Your task to perform on an android device: uninstall "Walmart Shopping & Grocery" Image 0: 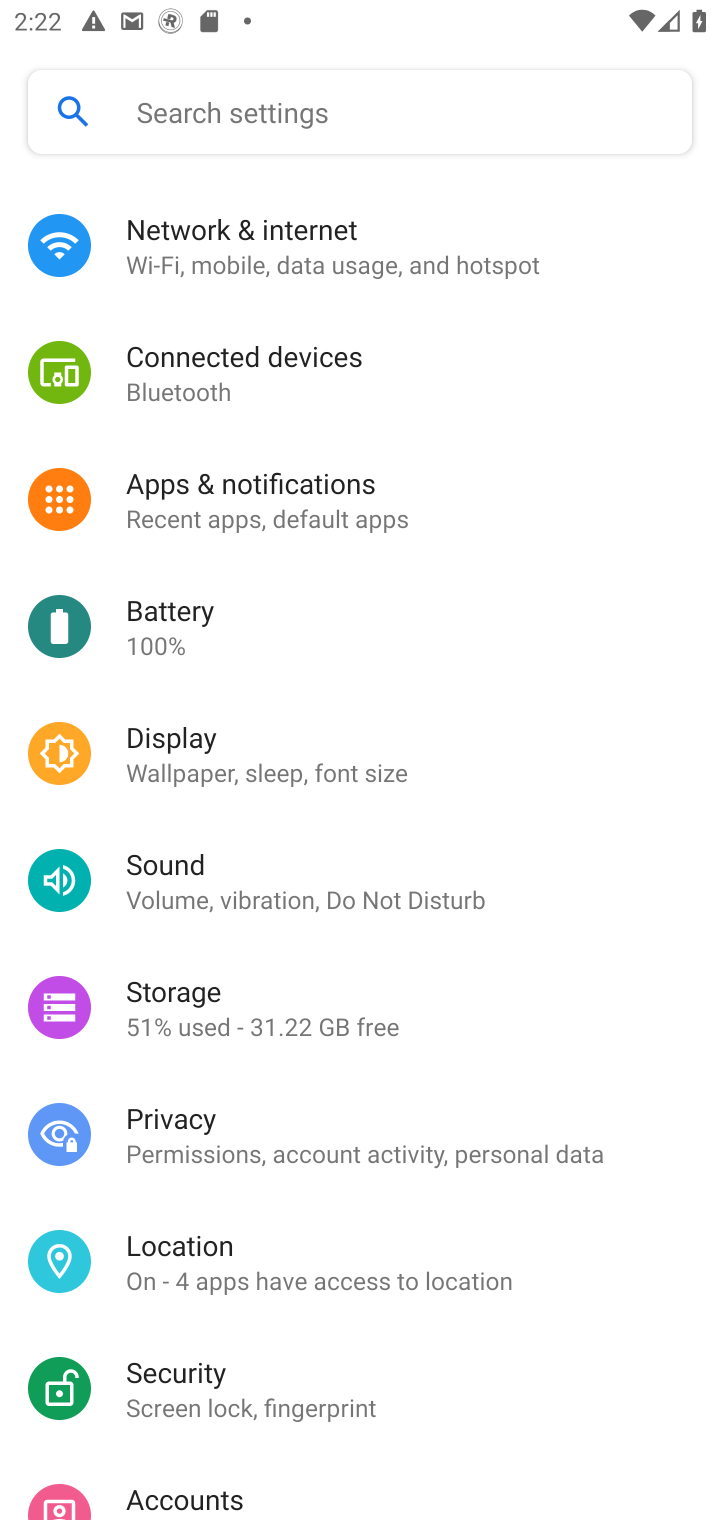
Step 0: press home button
Your task to perform on an android device: uninstall "Walmart Shopping & Grocery" Image 1: 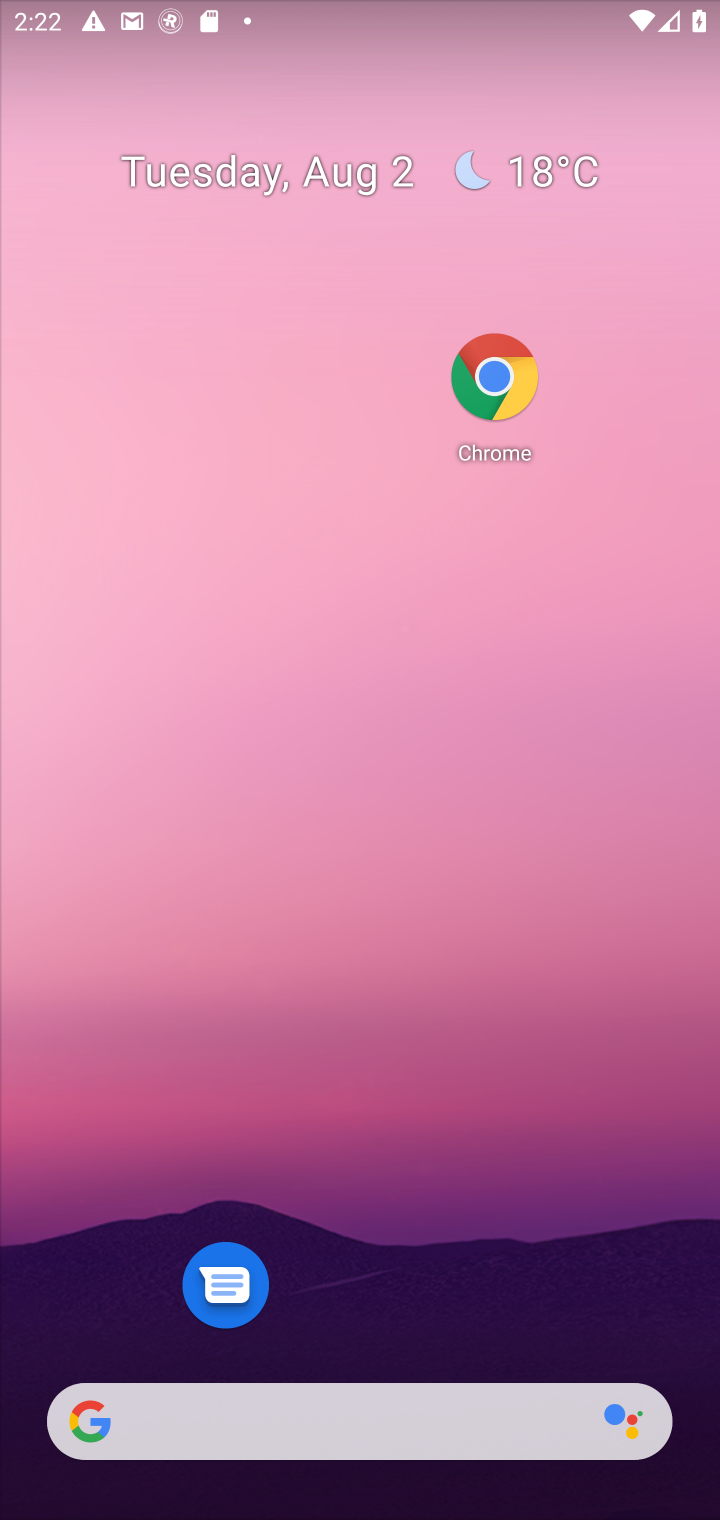
Step 1: drag from (489, 1332) to (237, 367)
Your task to perform on an android device: uninstall "Walmart Shopping & Grocery" Image 2: 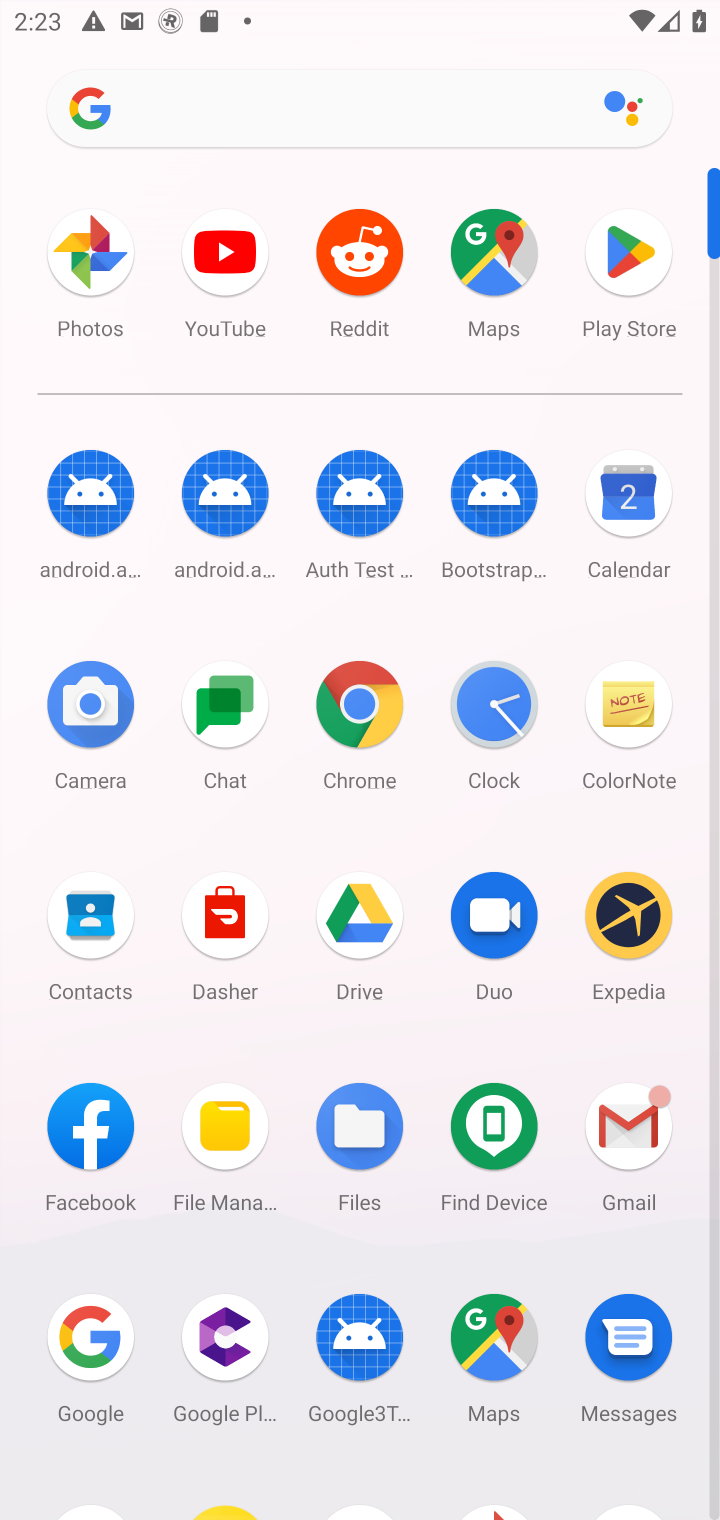
Step 2: press home button
Your task to perform on an android device: uninstall "Walmart Shopping & Grocery" Image 3: 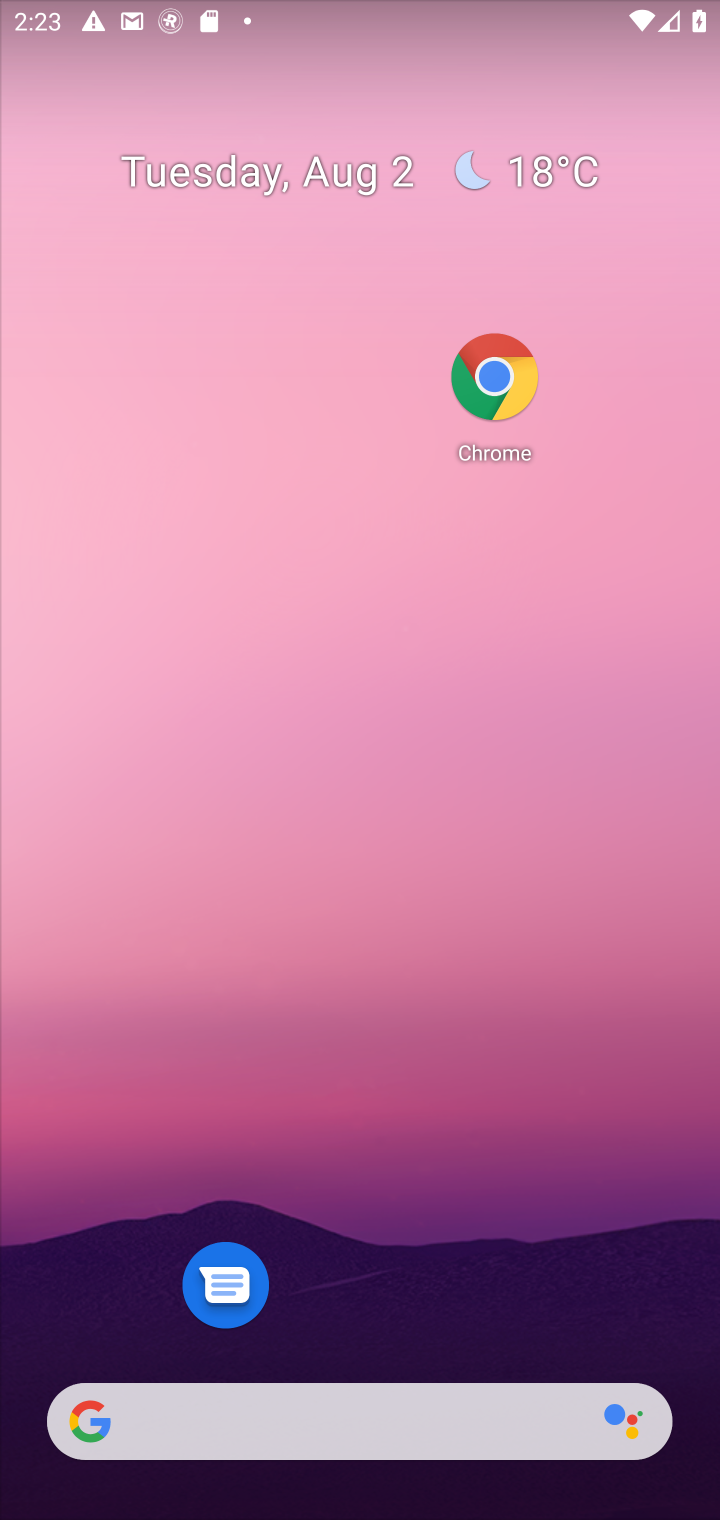
Step 3: drag from (378, 1263) to (346, 280)
Your task to perform on an android device: uninstall "Walmart Shopping & Grocery" Image 4: 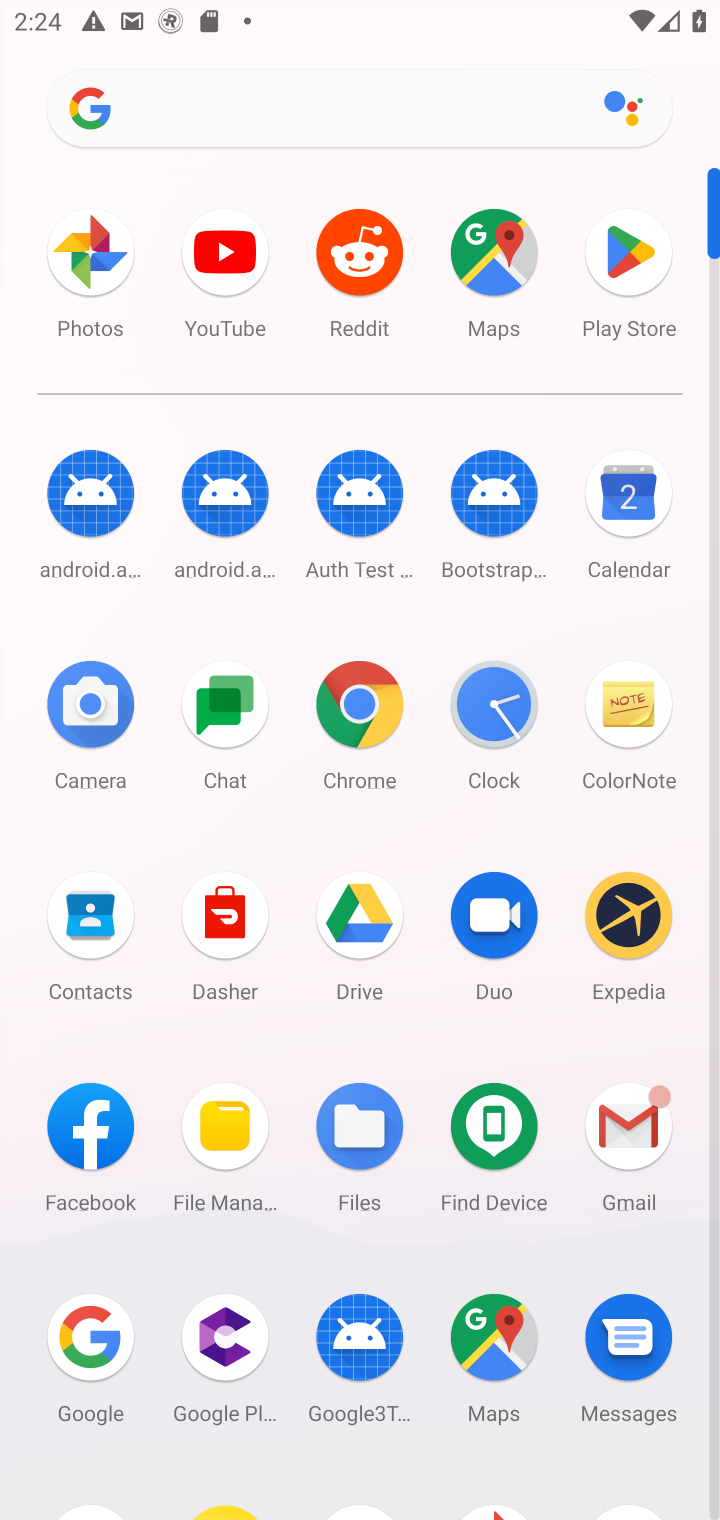
Step 4: click (601, 282)
Your task to perform on an android device: uninstall "Walmart Shopping & Grocery" Image 5: 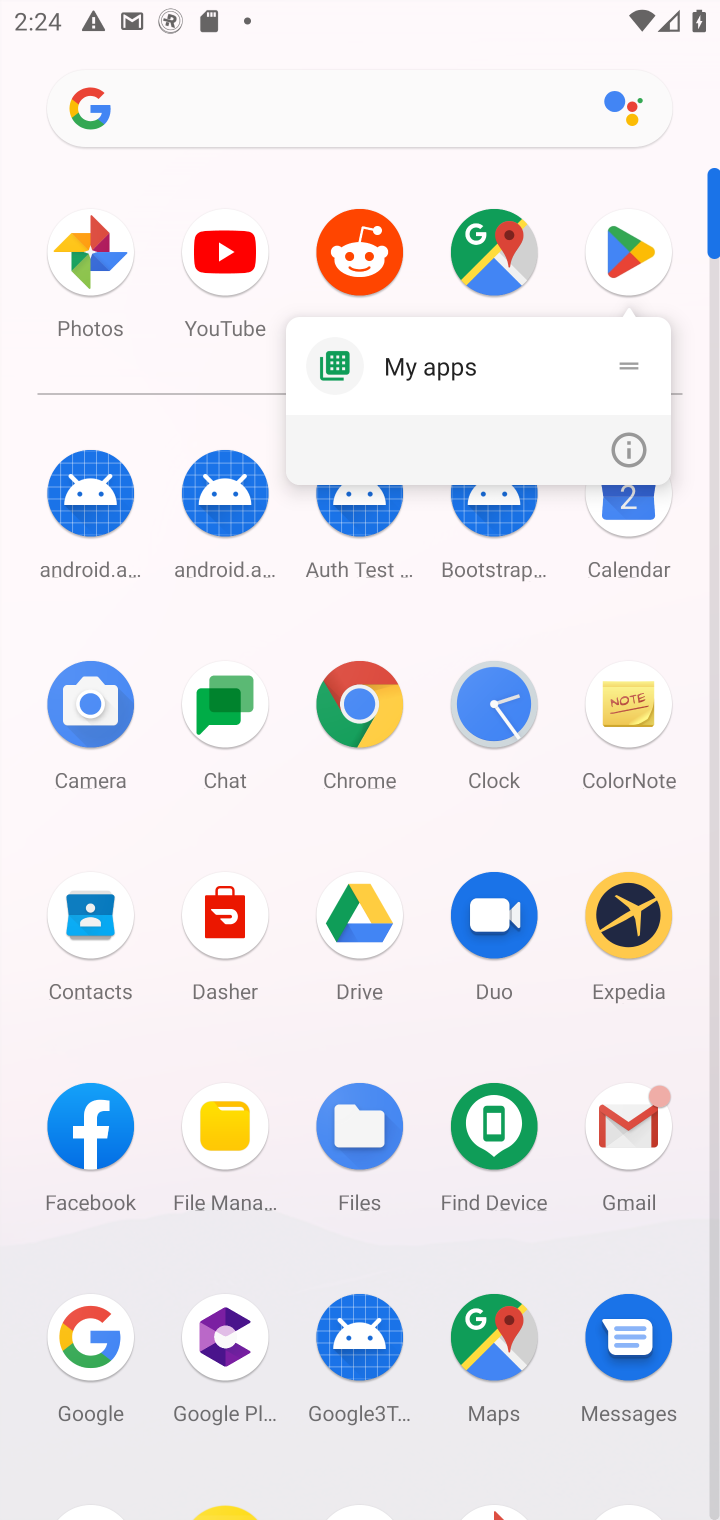
Step 5: click (601, 282)
Your task to perform on an android device: uninstall "Walmart Shopping & Grocery" Image 6: 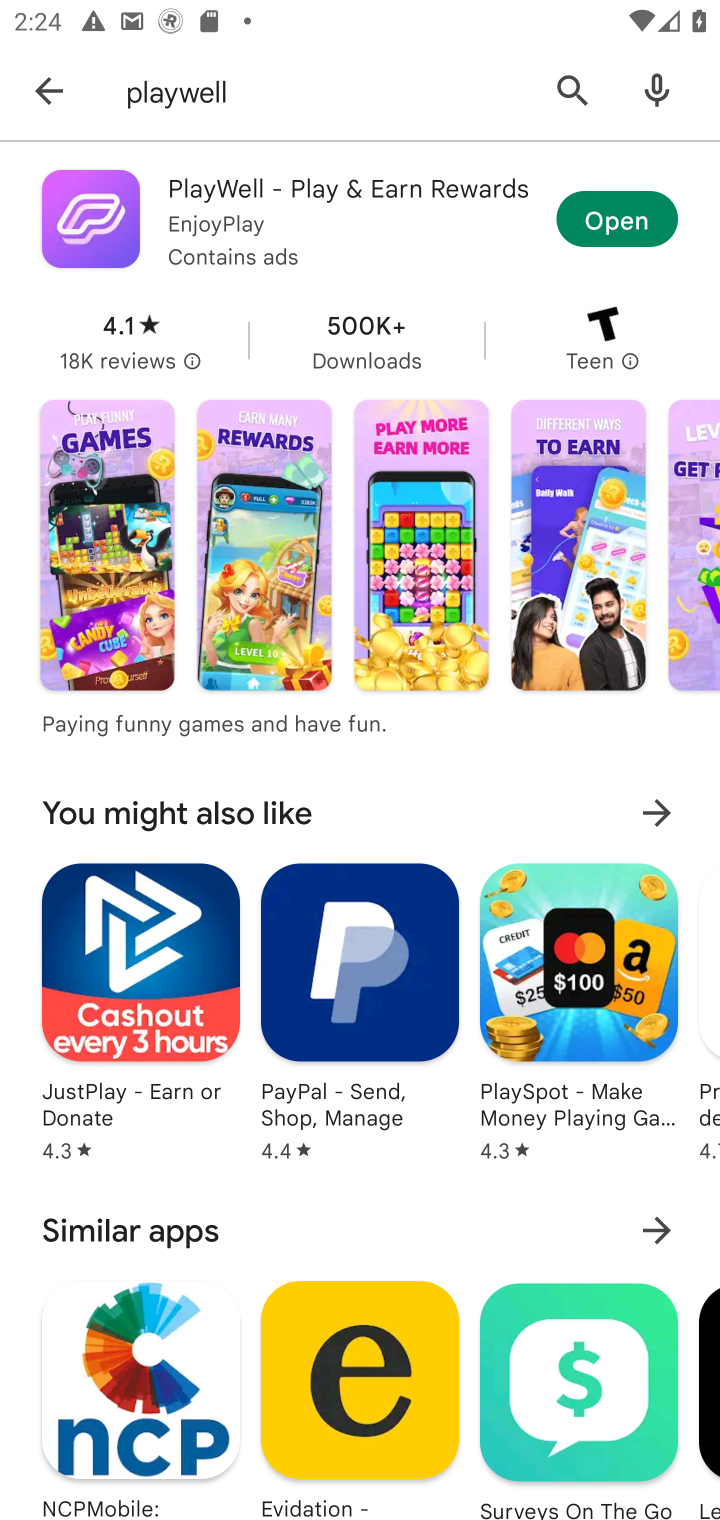
Step 6: click (599, 82)
Your task to perform on an android device: uninstall "Walmart Shopping & Grocery" Image 7: 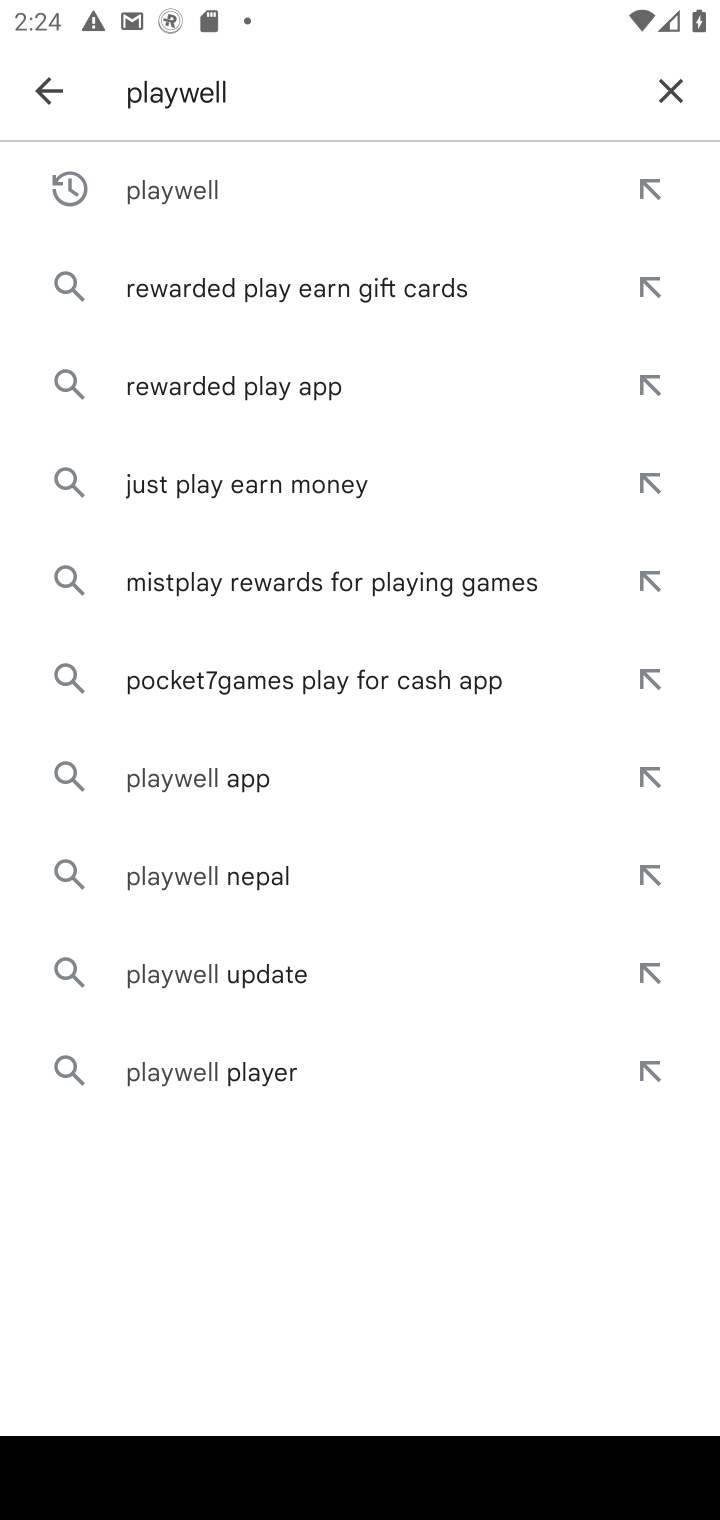
Step 7: click (696, 101)
Your task to perform on an android device: uninstall "Walmart Shopping & Grocery" Image 8: 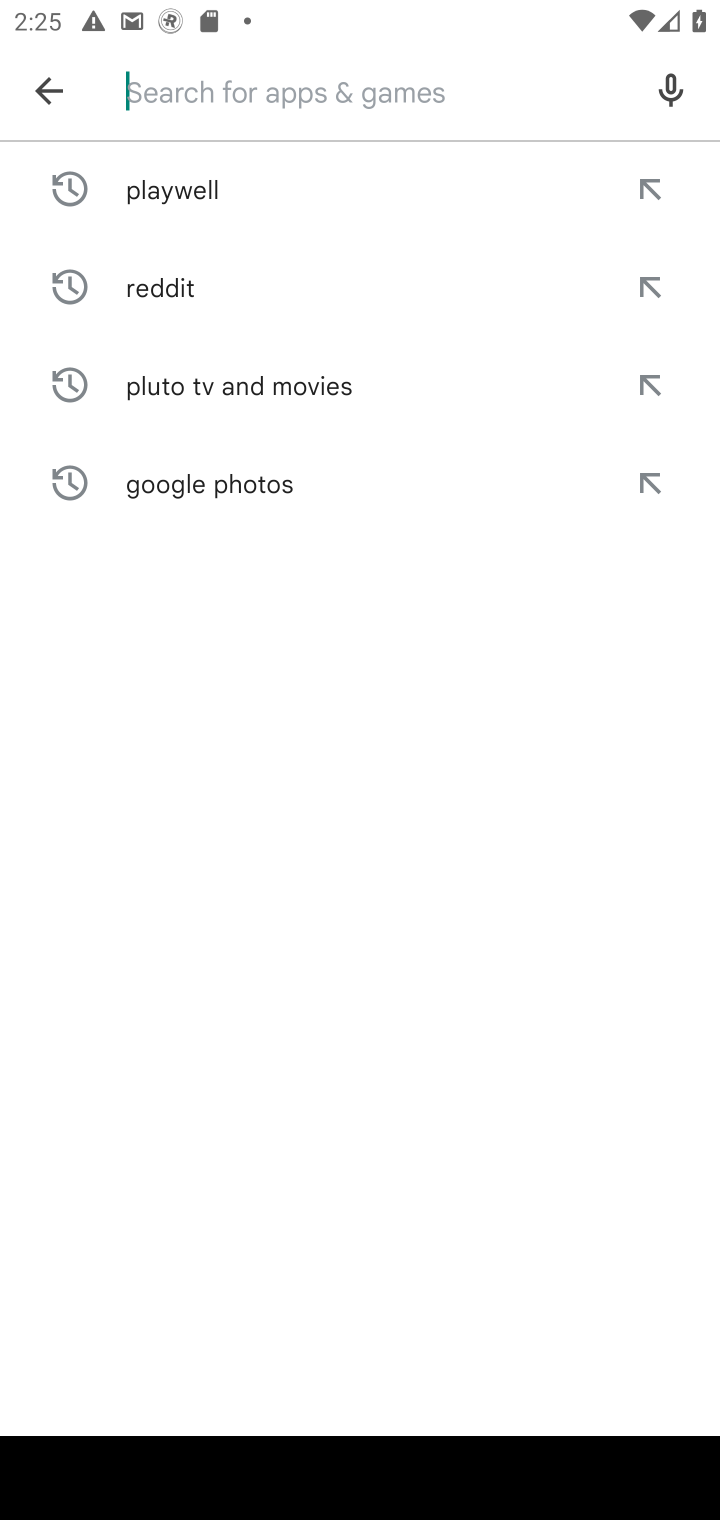
Step 8: type "Walmart Shopping & Grocery"
Your task to perform on an android device: uninstall "Walmart Shopping & Grocery" Image 9: 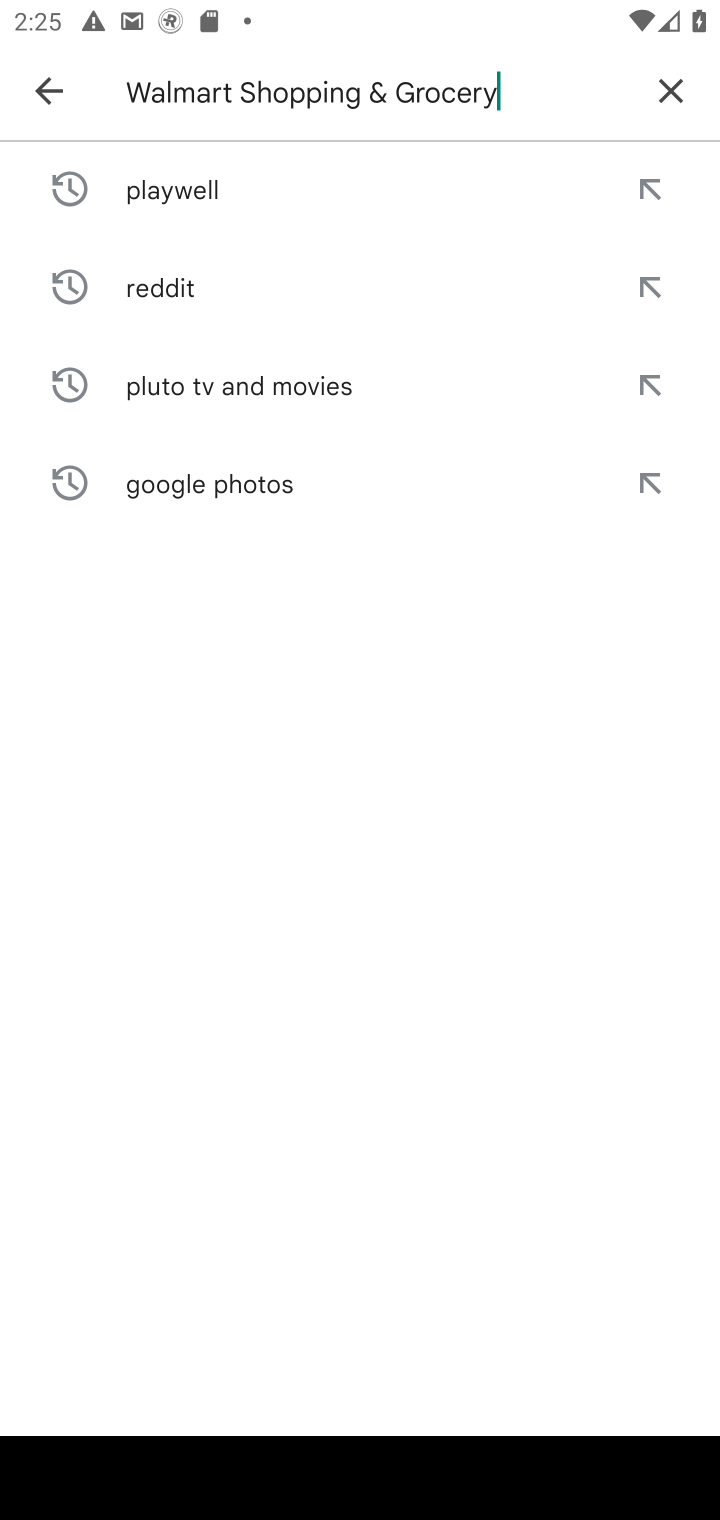
Step 9: type ""
Your task to perform on an android device: uninstall "Walmart Shopping & Grocery" Image 10: 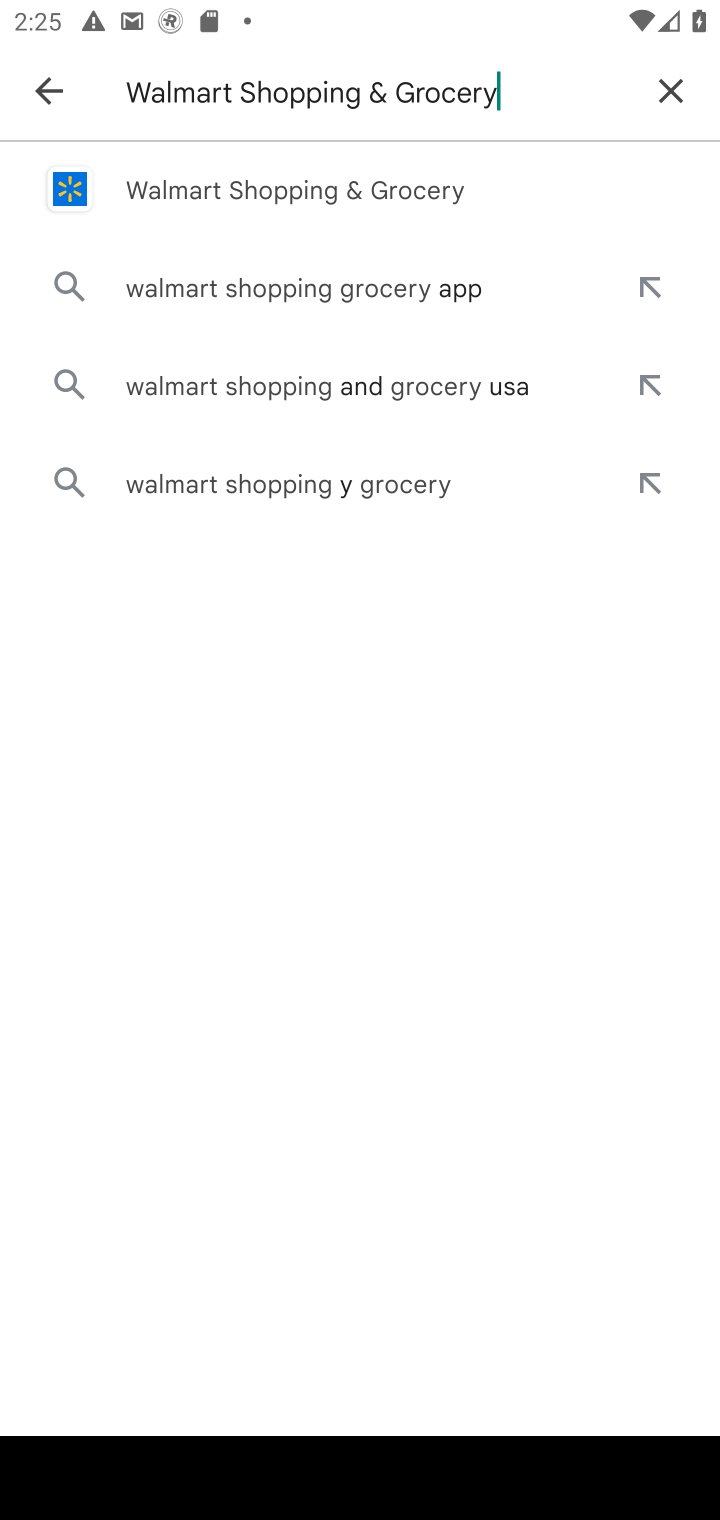
Step 10: click (156, 191)
Your task to perform on an android device: uninstall "Walmart Shopping & Grocery" Image 11: 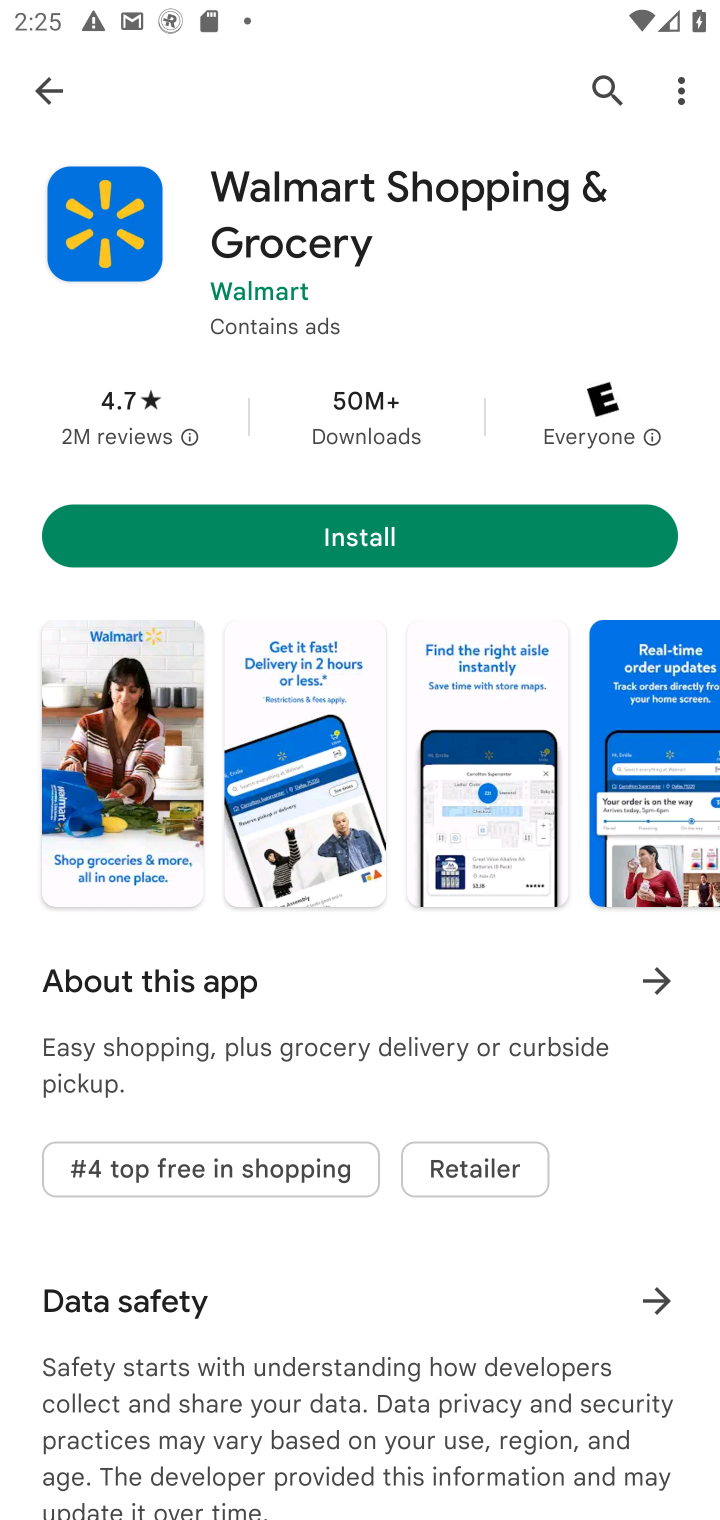
Step 11: task complete